Your task to perform on an android device: move an email to a new category in the gmail app Image 0: 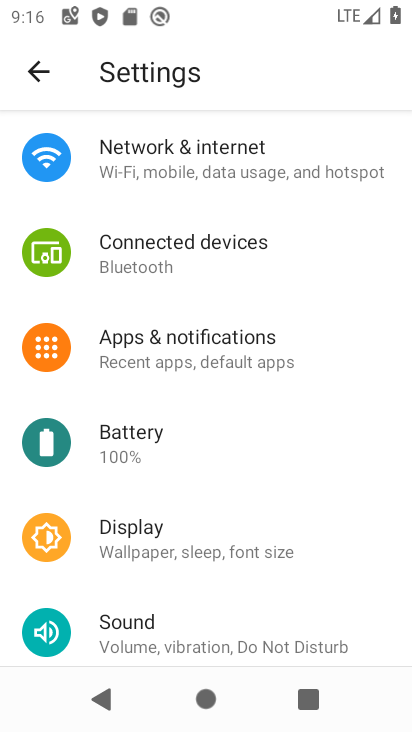
Step 0: press home button
Your task to perform on an android device: move an email to a new category in the gmail app Image 1: 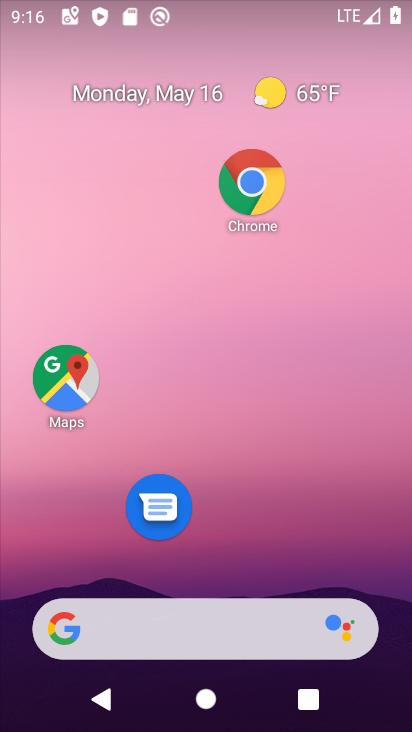
Step 1: drag from (240, 598) to (213, 14)
Your task to perform on an android device: move an email to a new category in the gmail app Image 2: 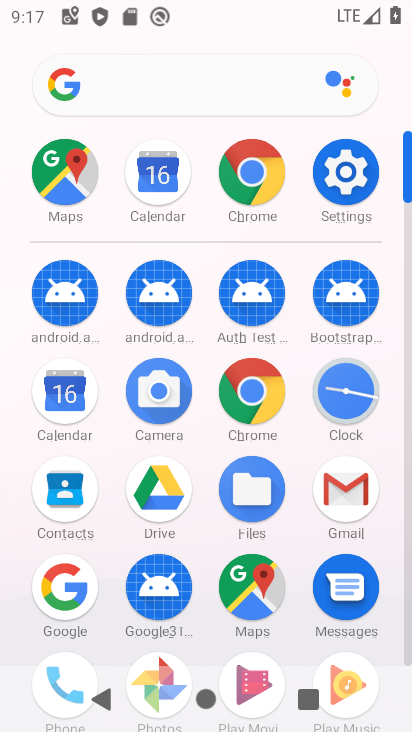
Step 2: click (345, 504)
Your task to perform on an android device: move an email to a new category in the gmail app Image 3: 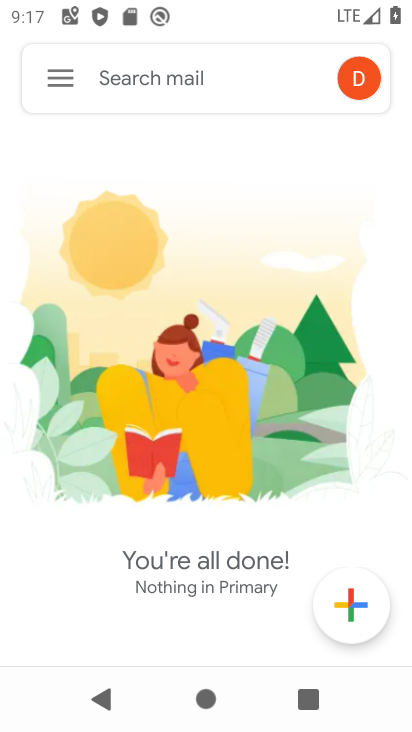
Step 3: click (61, 69)
Your task to perform on an android device: move an email to a new category in the gmail app Image 4: 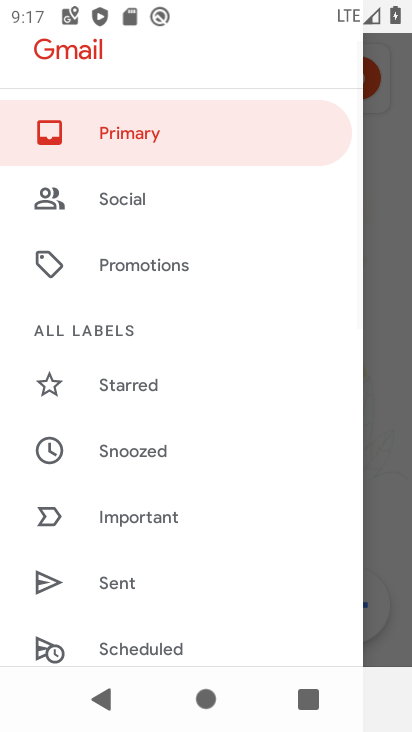
Step 4: drag from (151, 486) to (122, 120)
Your task to perform on an android device: move an email to a new category in the gmail app Image 5: 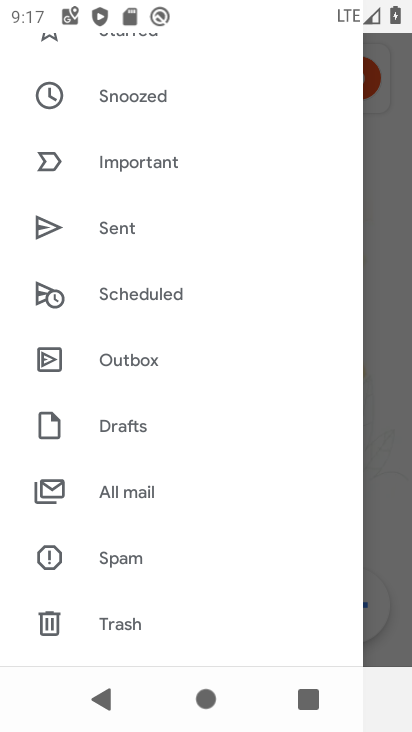
Step 5: drag from (161, 215) to (164, 561)
Your task to perform on an android device: move an email to a new category in the gmail app Image 6: 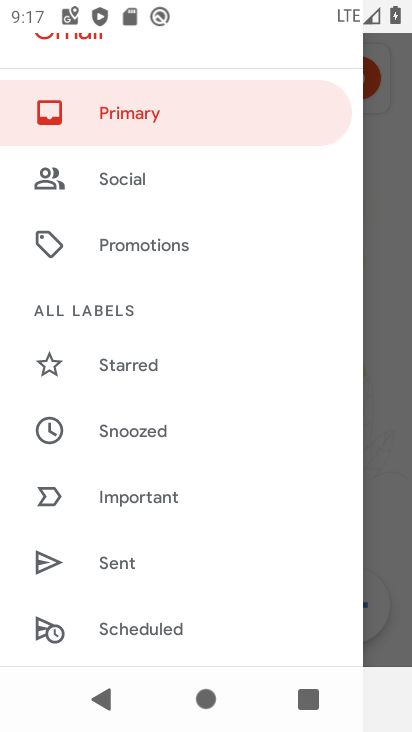
Step 6: click (142, 114)
Your task to perform on an android device: move an email to a new category in the gmail app Image 7: 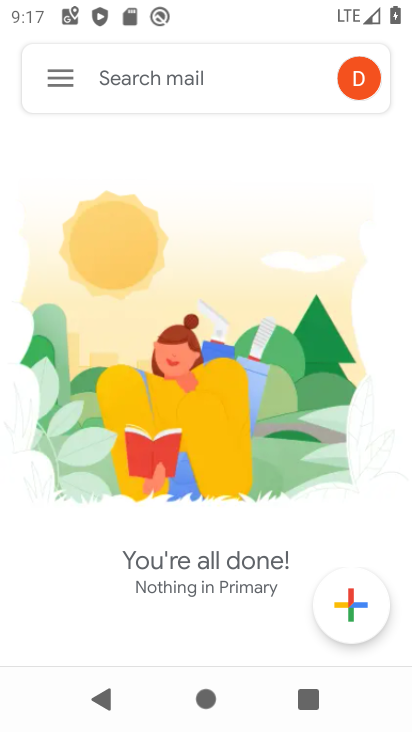
Step 7: task complete